Your task to perform on an android device: Play the last video I watched on Youtube Image 0: 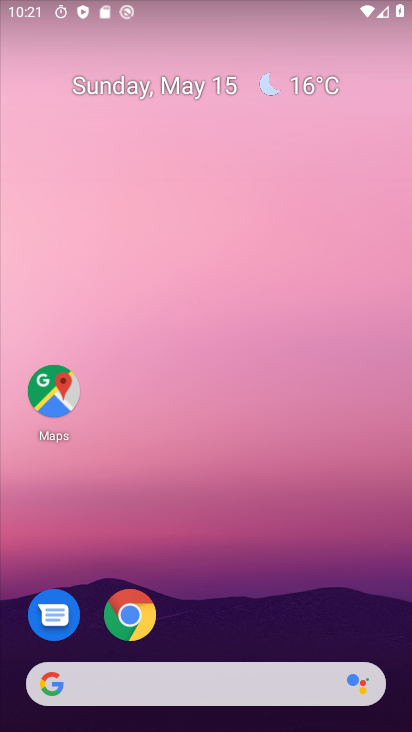
Step 0: drag from (184, 603) to (261, 75)
Your task to perform on an android device: Play the last video I watched on Youtube Image 1: 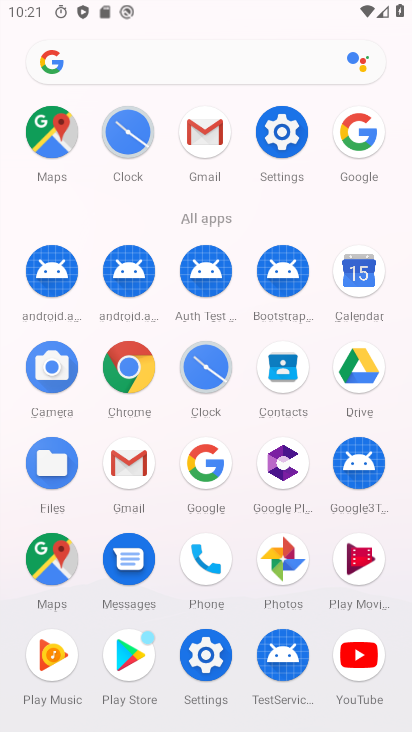
Step 1: drag from (289, 615) to (316, 290)
Your task to perform on an android device: Play the last video I watched on Youtube Image 2: 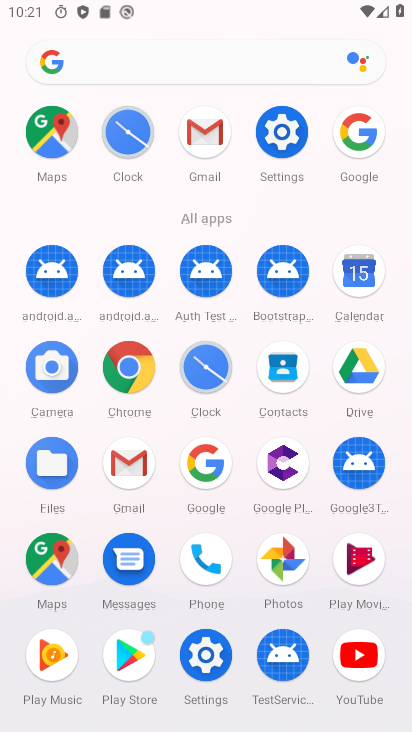
Step 2: click (359, 658)
Your task to perform on an android device: Play the last video I watched on Youtube Image 3: 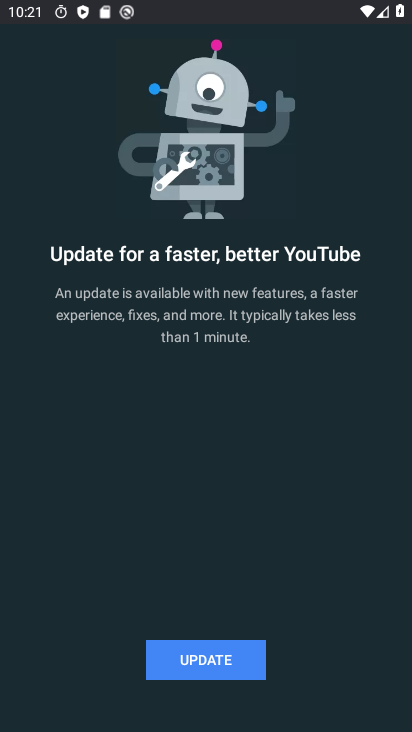
Step 3: click (251, 666)
Your task to perform on an android device: Play the last video I watched on Youtube Image 4: 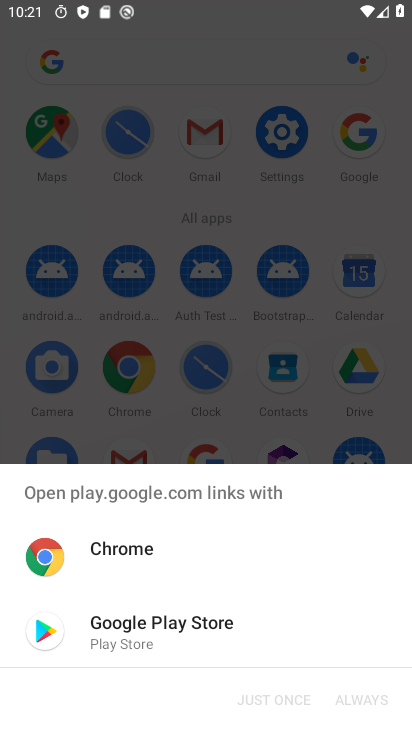
Step 4: click (188, 628)
Your task to perform on an android device: Play the last video I watched on Youtube Image 5: 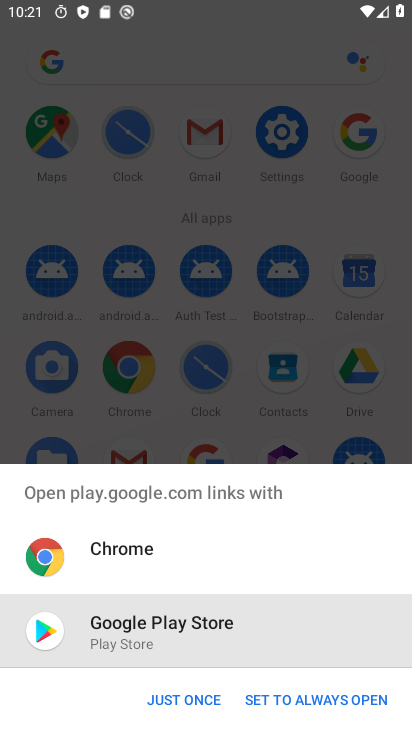
Step 5: click (341, 633)
Your task to perform on an android device: Play the last video I watched on Youtube Image 6: 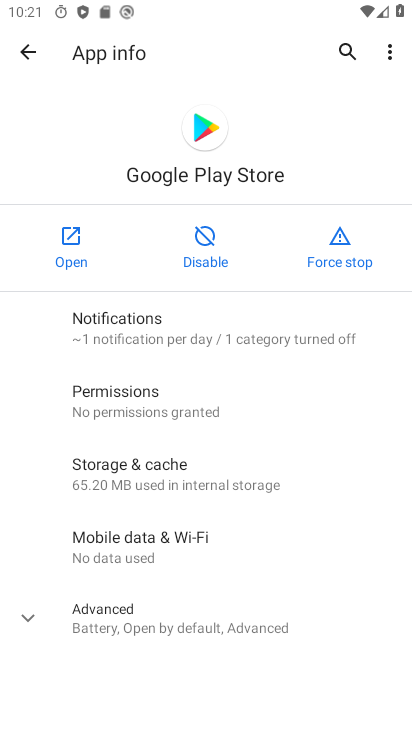
Step 6: press back button
Your task to perform on an android device: Play the last video I watched on Youtube Image 7: 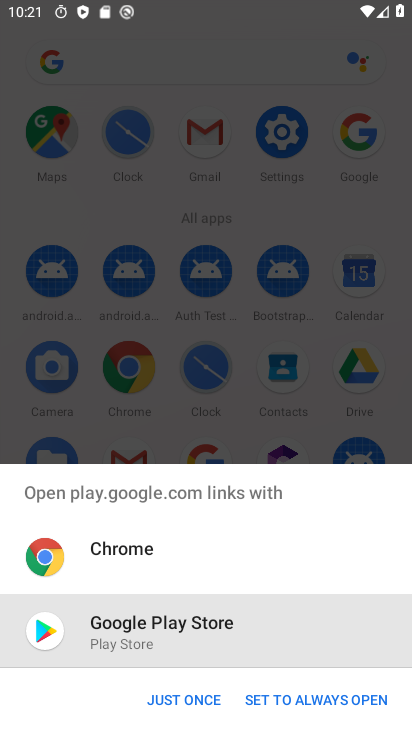
Step 7: click (211, 703)
Your task to perform on an android device: Play the last video I watched on Youtube Image 8: 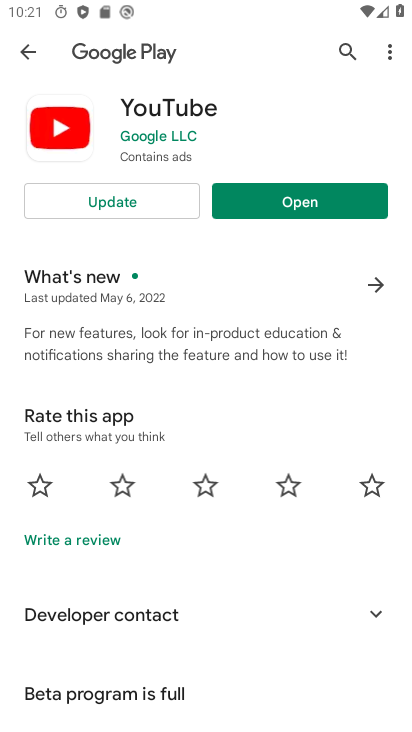
Step 8: click (140, 197)
Your task to perform on an android device: Play the last video I watched on Youtube Image 9: 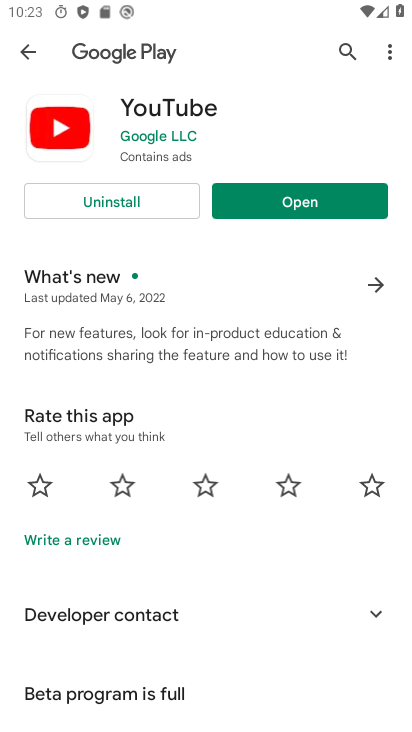
Step 9: click (318, 203)
Your task to perform on an android device: Play the last video I watched on Youtube Image 10: 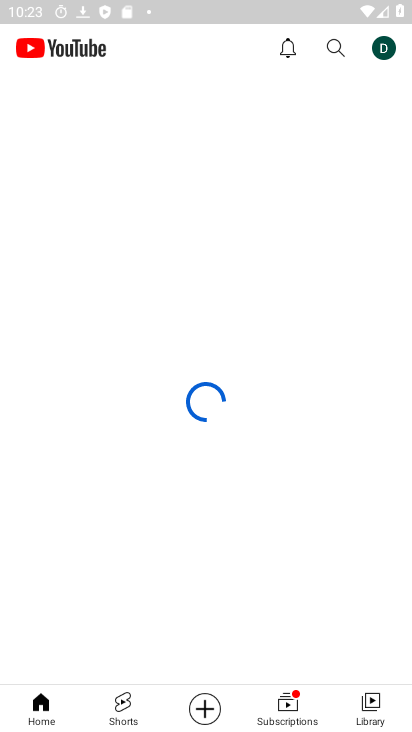
Step 10: click (367, 710)
Your task to perform on an android device: Play the last video I watched on Youtube Image 11: 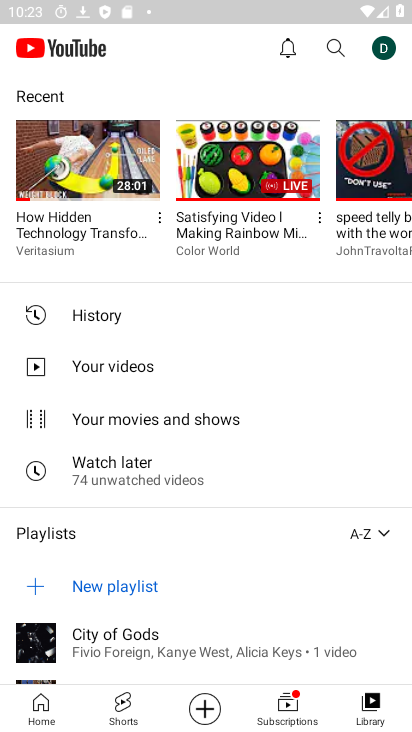
Step 11: click (102, 180)
Your task to perform on an android device: Play the last video I watched on Youtube Image 12: 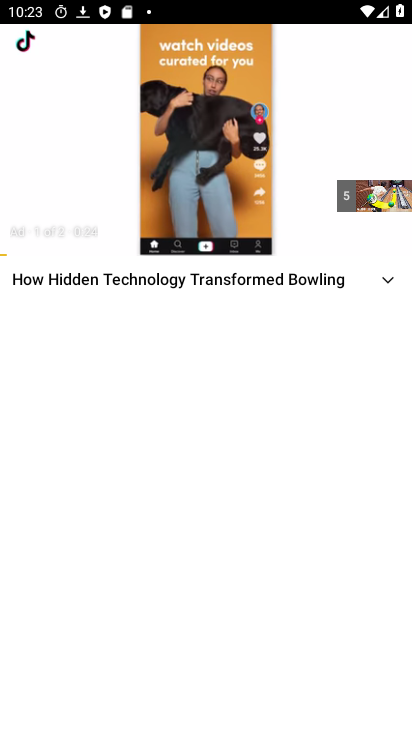
Step 12: task complete